Your task to perform on an android device: Go to CNN.com Image 0: 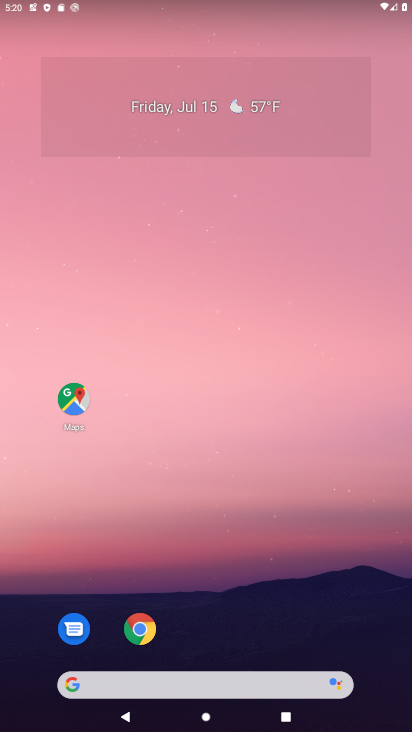
Step 0: press home button
Your task to perform on an android device: Go to CNN.com Image 1: 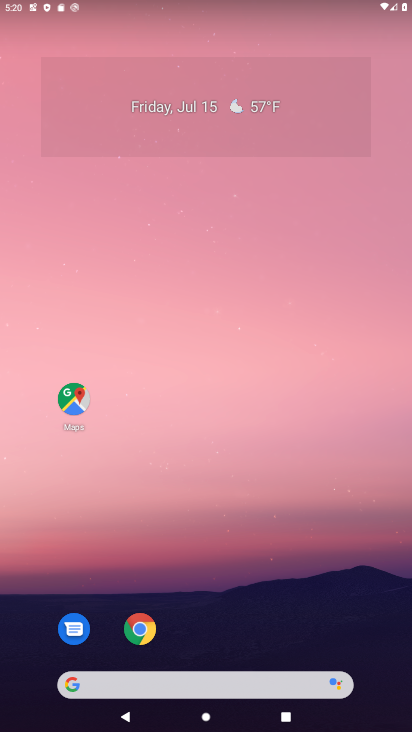
Step 1: click (68, 683)
Your task to perform on an android device: Go to CNN.com Image 2: 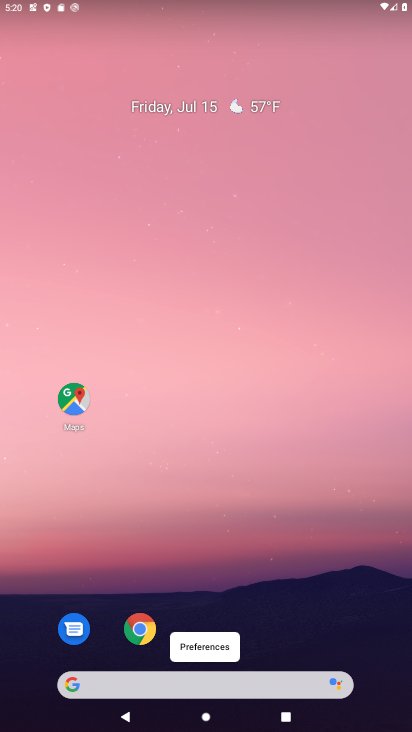
Step 2: click (71, 688)
Your task to perform on an android device: Go to CNN.com Image 3: 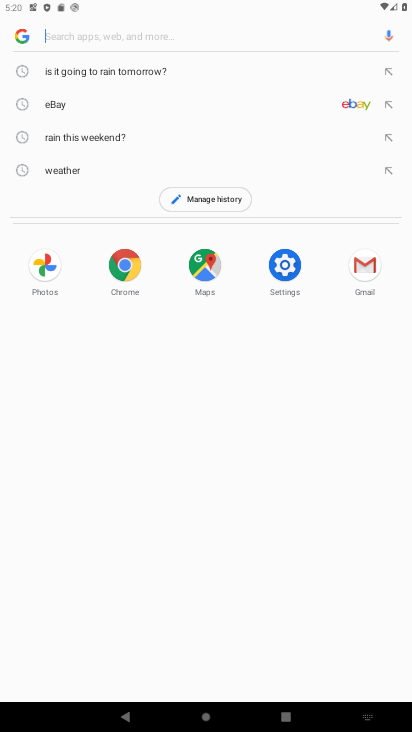
Step 3: type "CNN.com"
Your task to perform on an android device: Go to CNN.com Image 4: 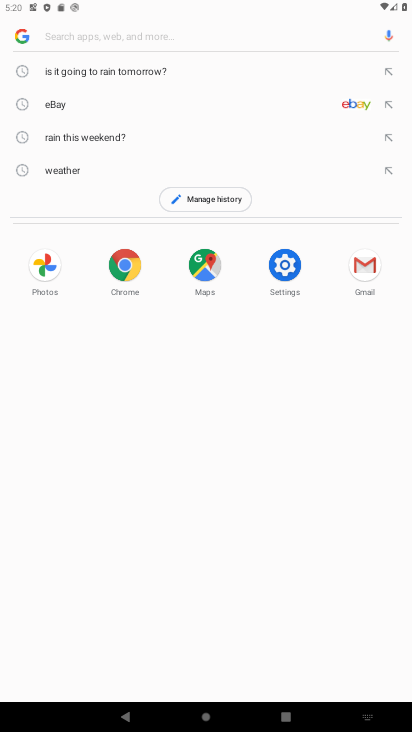
Step 4: click (90, 35)
Your task to perform on an android device: Go to CNN.com Image 5: 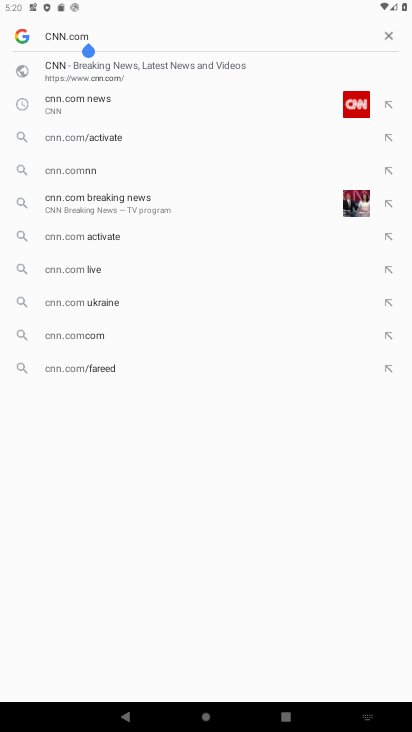
Step 5: click (366, 98)
Your task to perform on an android device: Go to CNN.com Image 6: 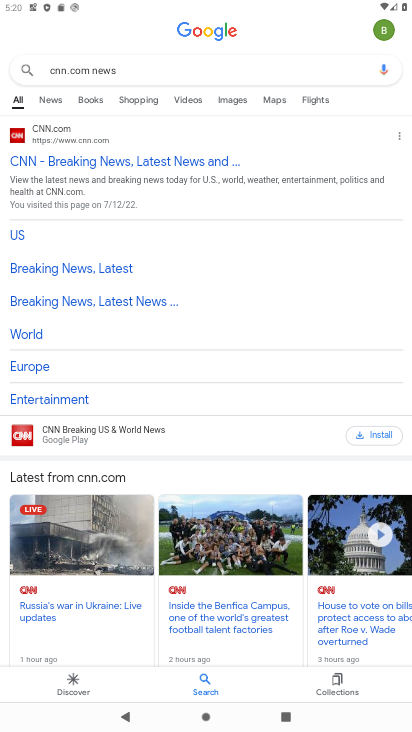
Step 6: click (87, 157)
Your task to perform on an android device: Go to CNN.com Image 7: 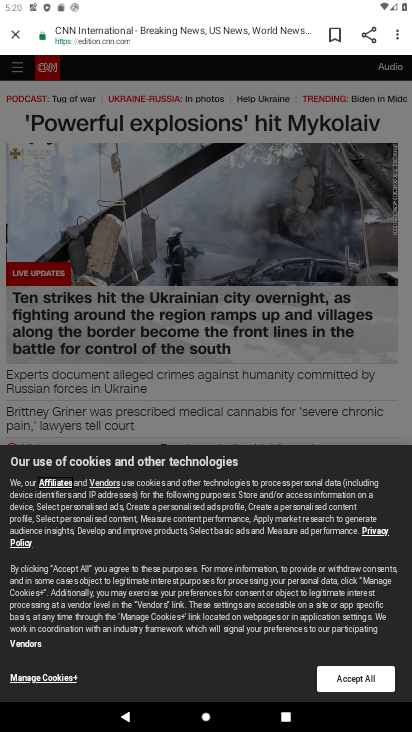
Step 7: click (367, 685)
Your task to perform on an android device: Go to CNN.com Image 8: 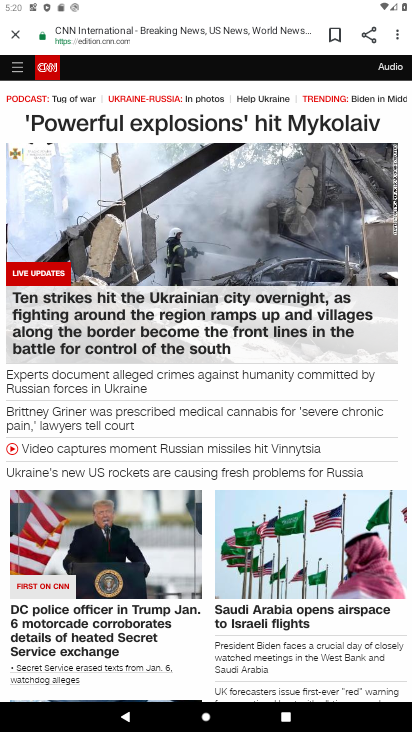
Step 8: task complete